Your task to perform on an android device: manage bookmarks in the chrome app Image 0: 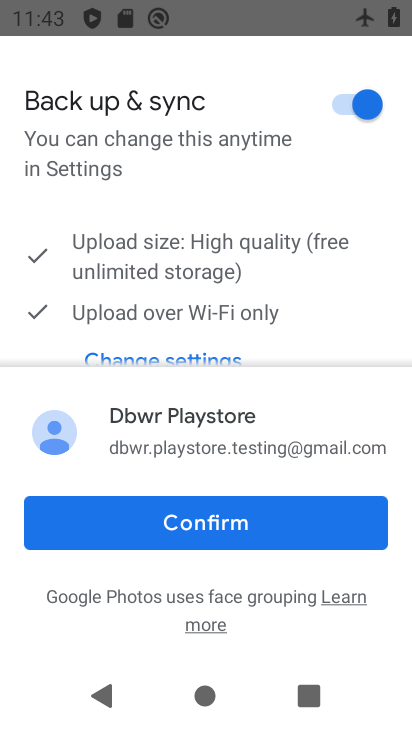
Step 0: press home button
Your task to perform on an android device: manage bookmarks in the chrome app Image 1: 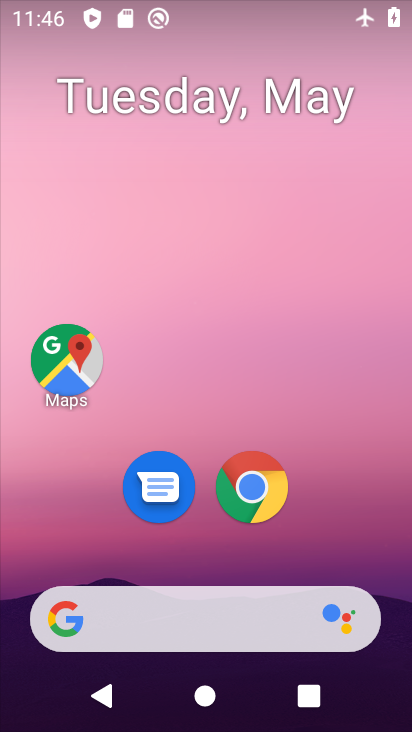
Step 1: click (259, 512)
Your task to perform on an android device: manage bookmarks in the chrome app Image 2: 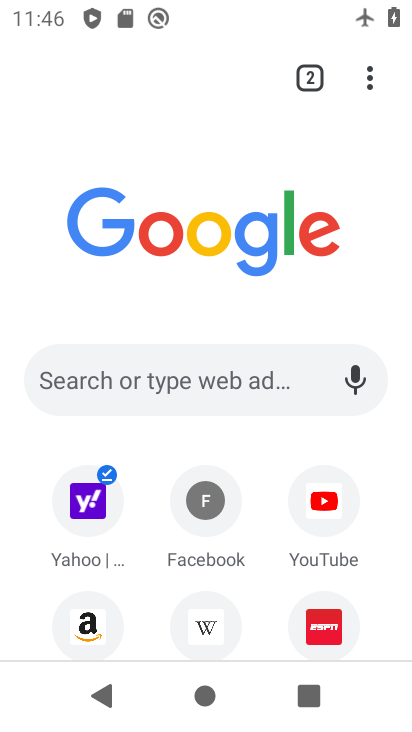
Step 2: click (370, 74)
Your task to perform on an android device: manage bookmarks in the chrome app Image 3: 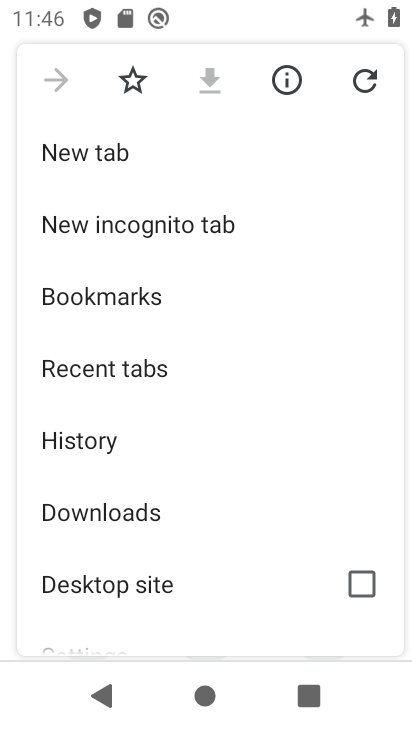
Step 3: click (173, 287)
Your task to perform on an android device: manage bookmarks in the chrome app Image 4: 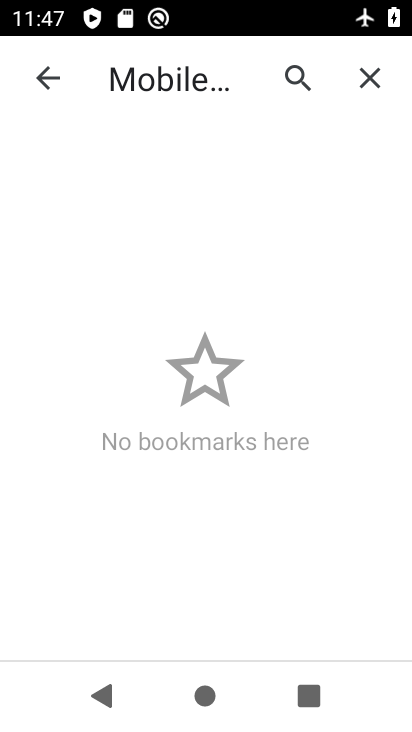
Step 4: task complete